Your task to perform on an android device: Open Maps and search for coffee Image 0: 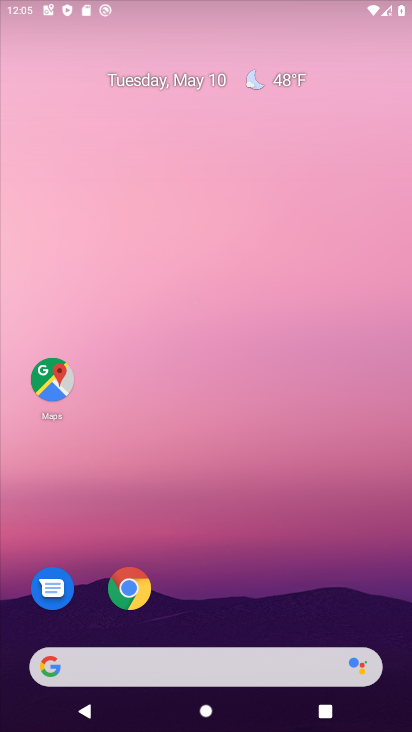
Step 0: drag from (228, 585) to (304, 472)
Your task to perform on an android device: Open Maps and search for coffee Image 1: 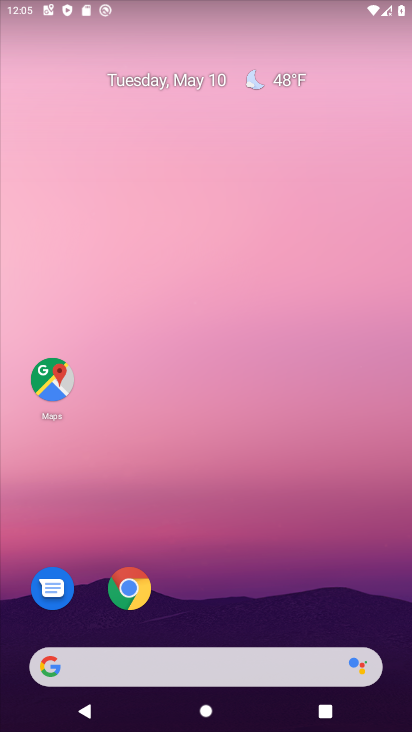
Step 1: click (46, 369)
Your task to perform on an android device: Open Maps and search for coffee Image 2: 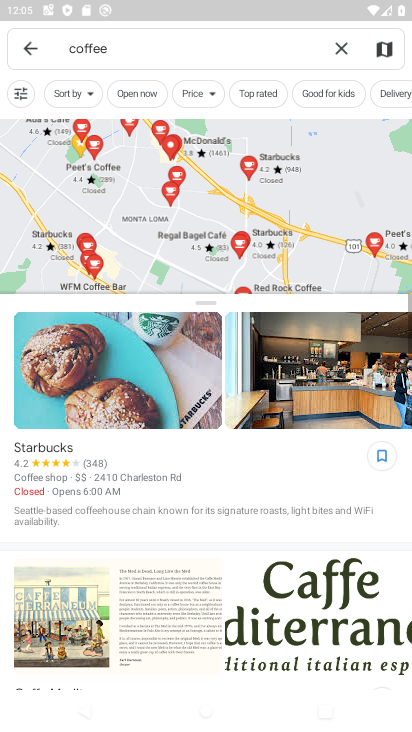
Step 2: click (339, 45)
Your task to perform on an android device: Open Maps and search for coffee Image 3: 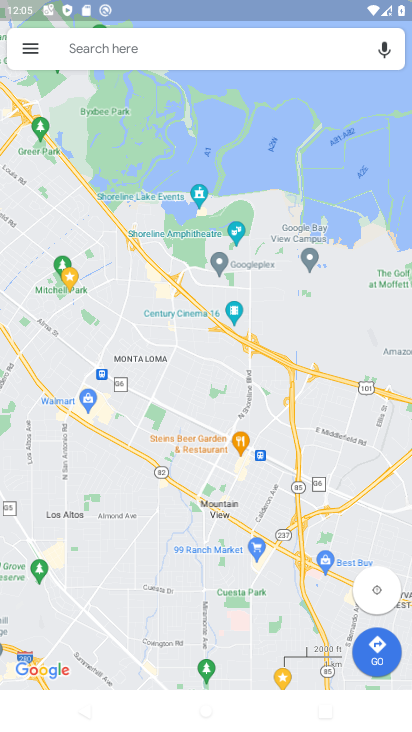
Step 3: click (293, 36)
Your task to perform on an android device: Open Maps and search for coffee Image 4: 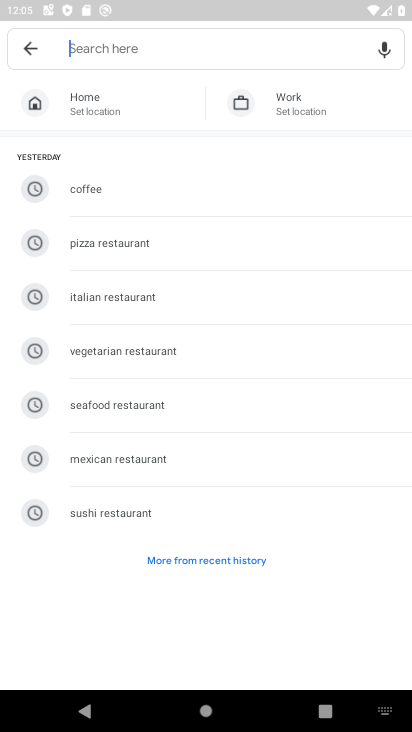
Step 4: click (169, 454)
Your task to perform on an android device: Open Maps and search for coffee Image 5: 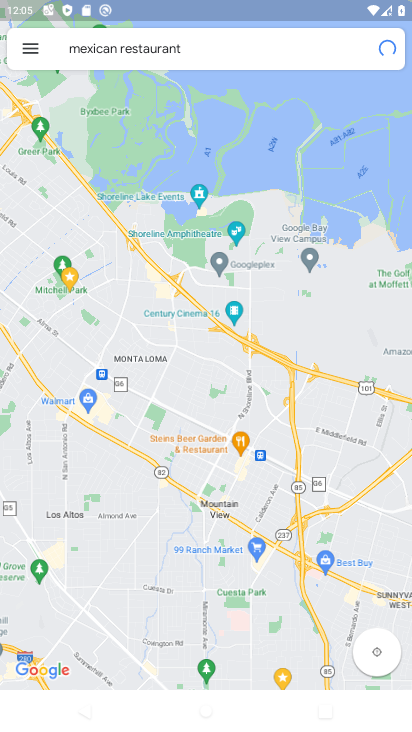
Step 5: click (241, 38)
Your task to perform on an android device: Open Maps and search for coffee Image 6: 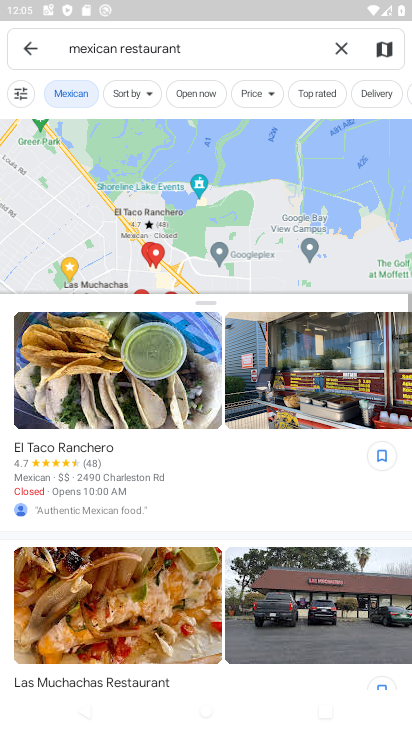
Step 6: click (241, 38)
Your task to perform on an android device: Open Maps and search for coffee Image 7: 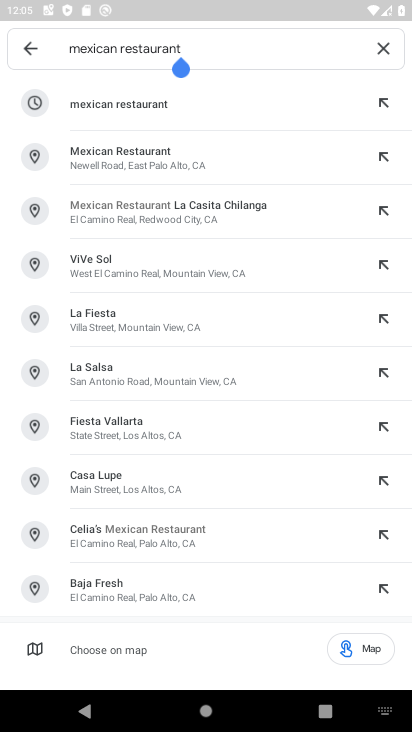
Step 7: click (383, 47)
Your task to perform on an android device: Open Maps and search for coffee Image 8: 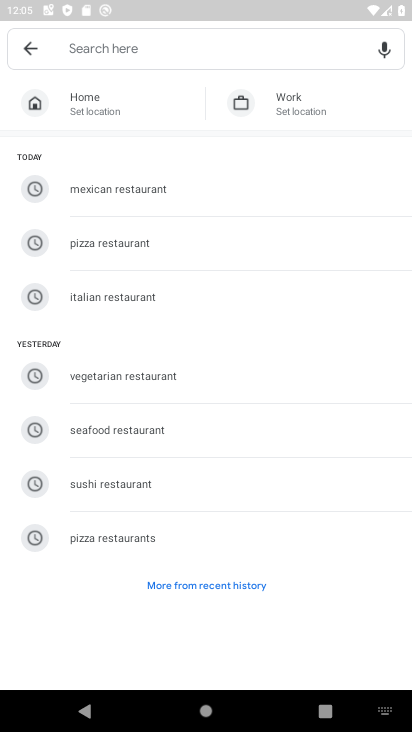
Step 8: click (312, 51)
Your task to perform on an android device: Open Maps and search for coffee Image 9: 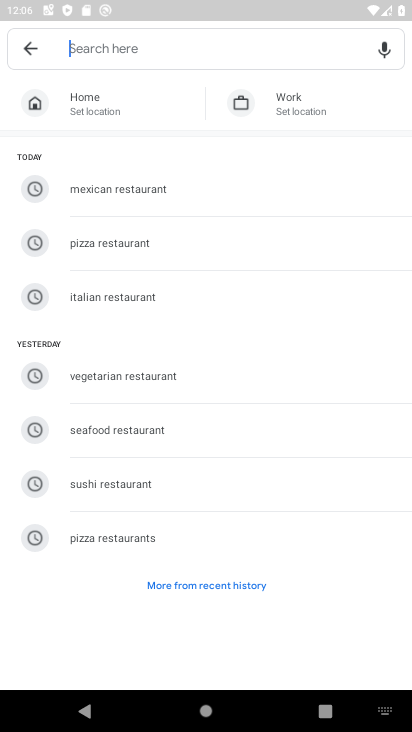
Step 9: type "coffee  "
Your task to perform on an android device: Open Maps and search for coffee Image 10: 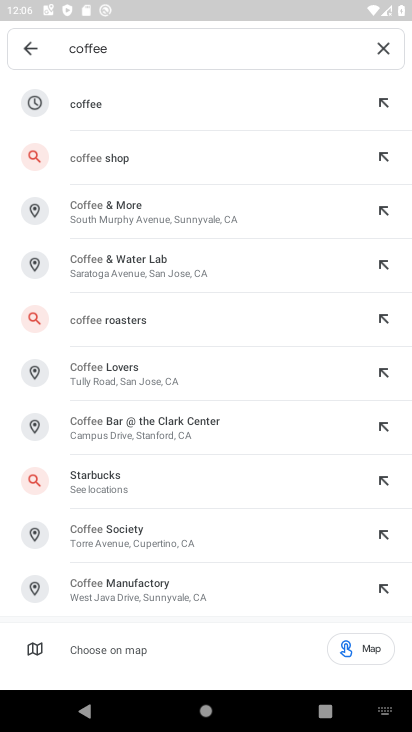
Step 10: click (172, 108)
Your task to perform on an android device: Open Maps and search for coffee Image 11: 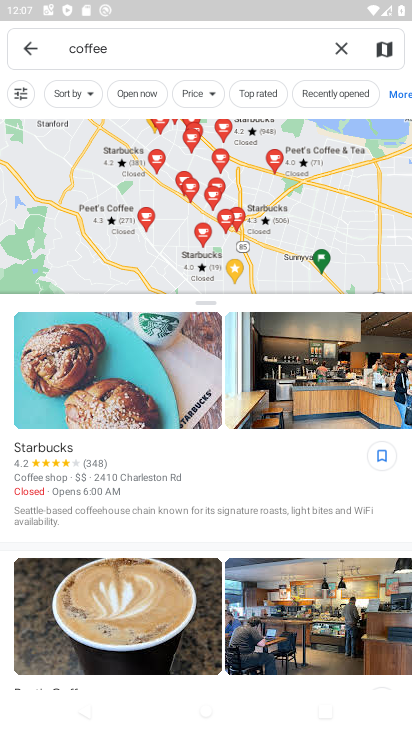
Step 11: task complete